Your task to perform on an android device: Show the shopping cart on ebay. Image 0: 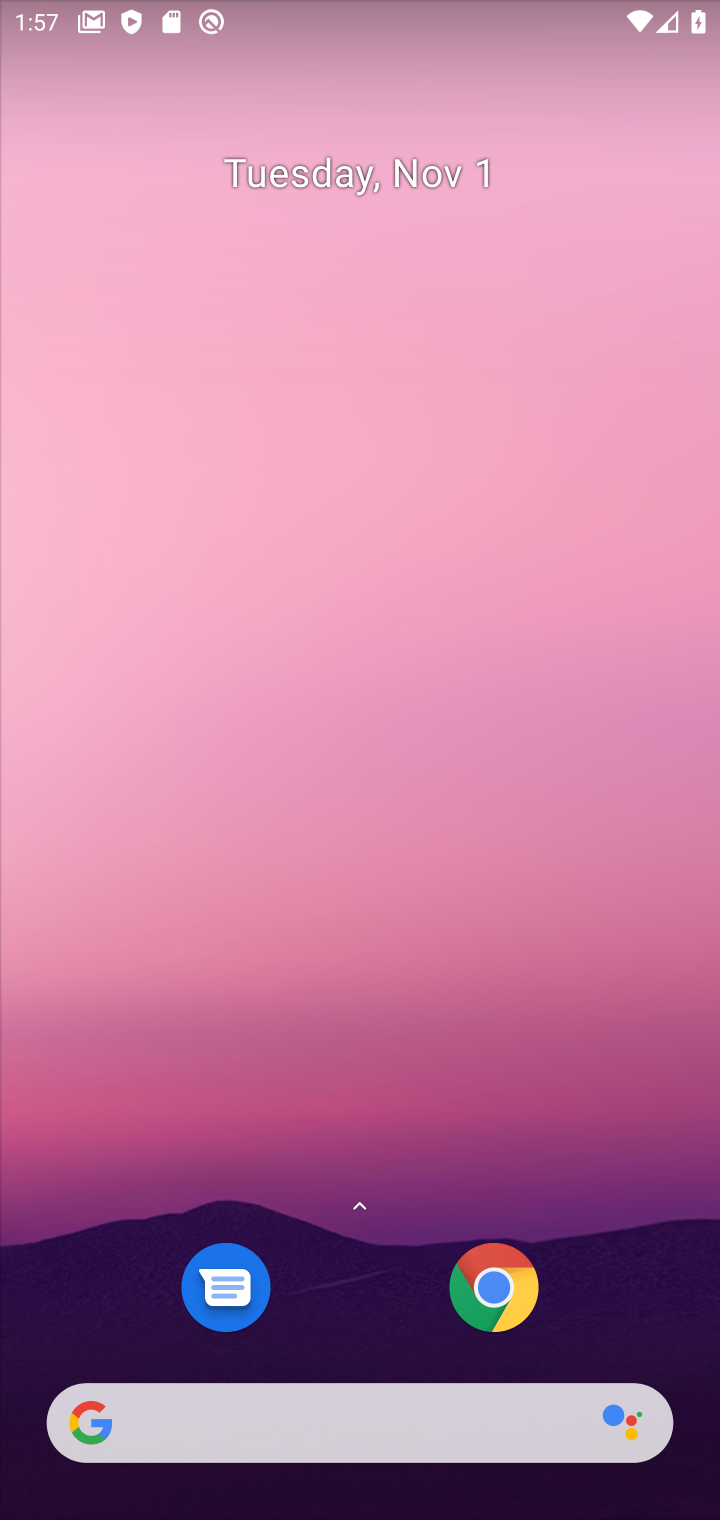
Step 0: press home button
Your task to perform on an android device: Show the shopping cart on ebay. Image 1: 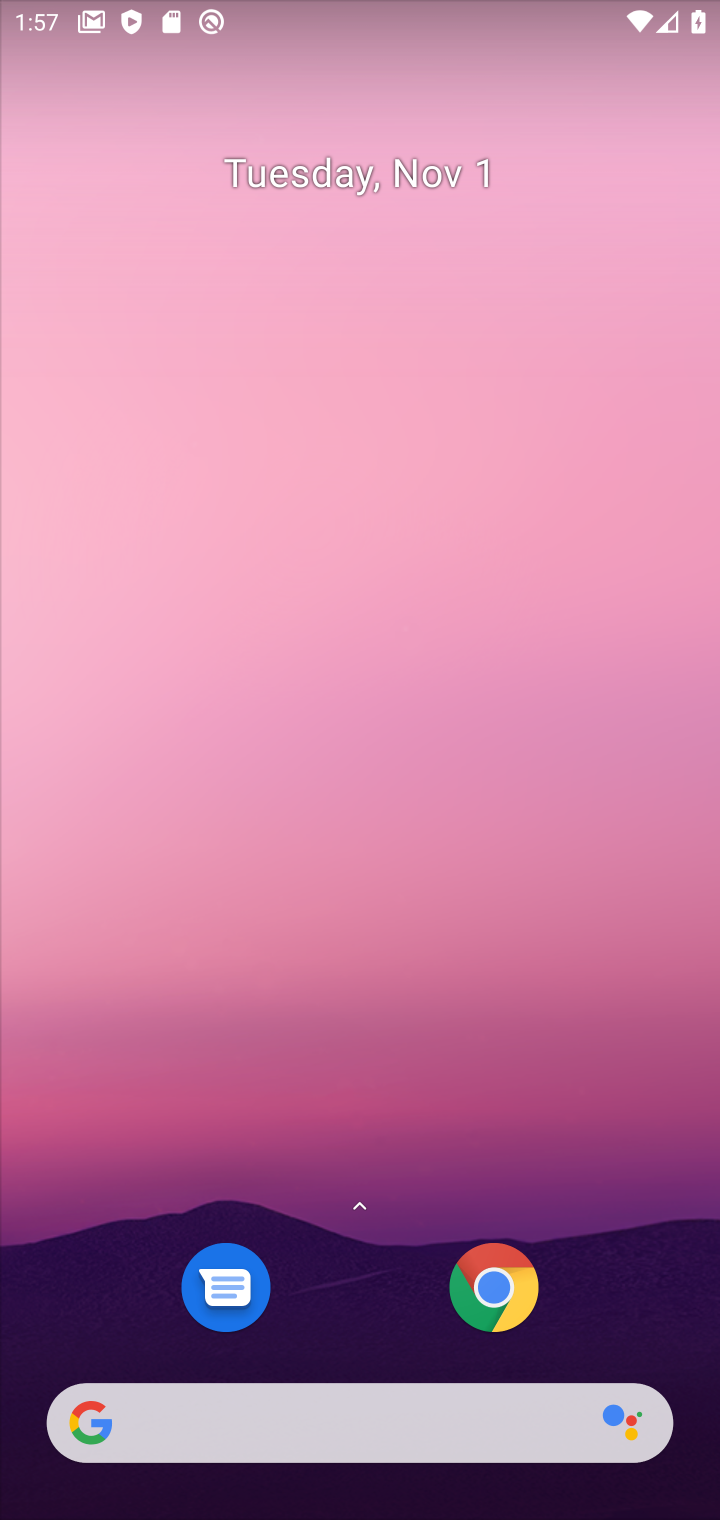
Step 1: drag from (381, 893) to (464, 44)
Your task to perform on an android device: Show the shopping cart on ebay. Image 2: 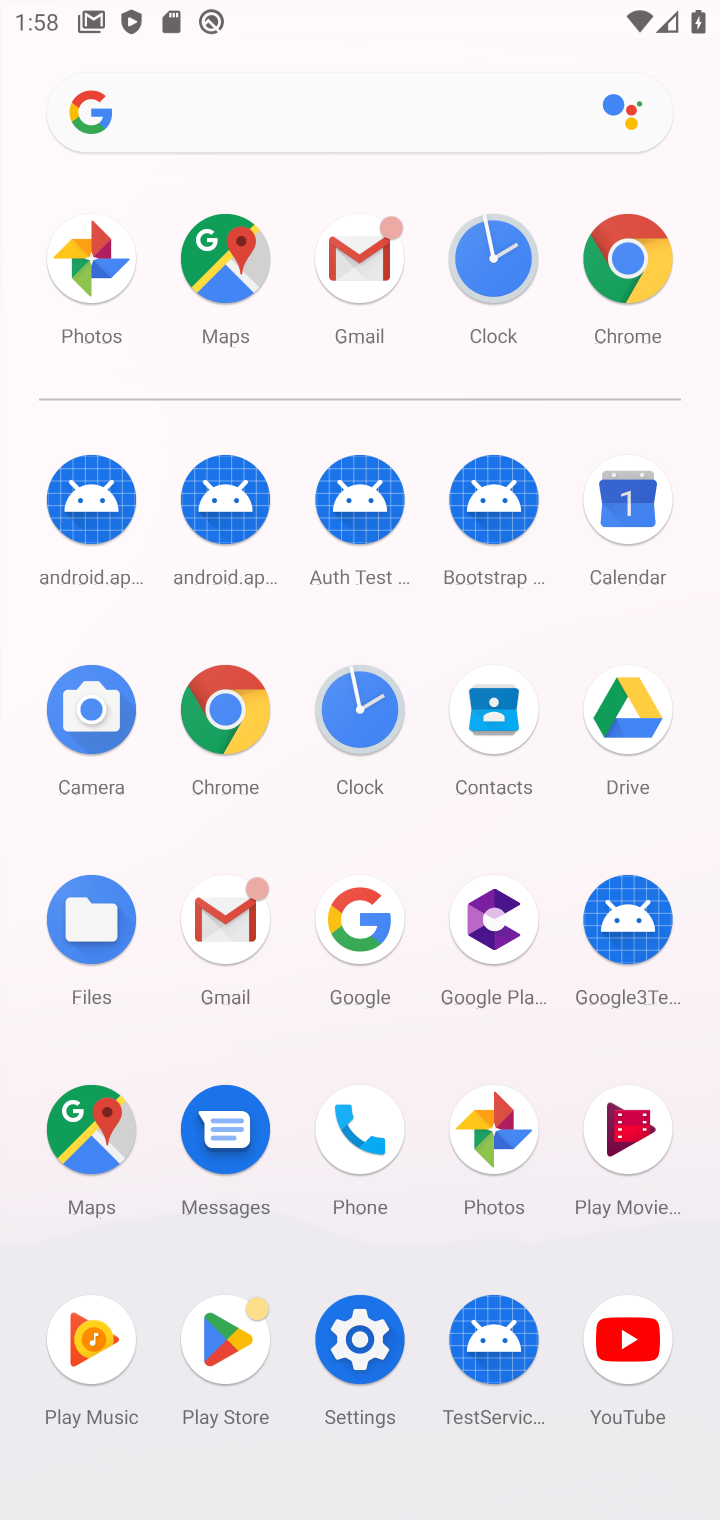
Step 2: click (221, 703)
Your task to perform on an android device: Show the shopping cart on ebay. Image 3: 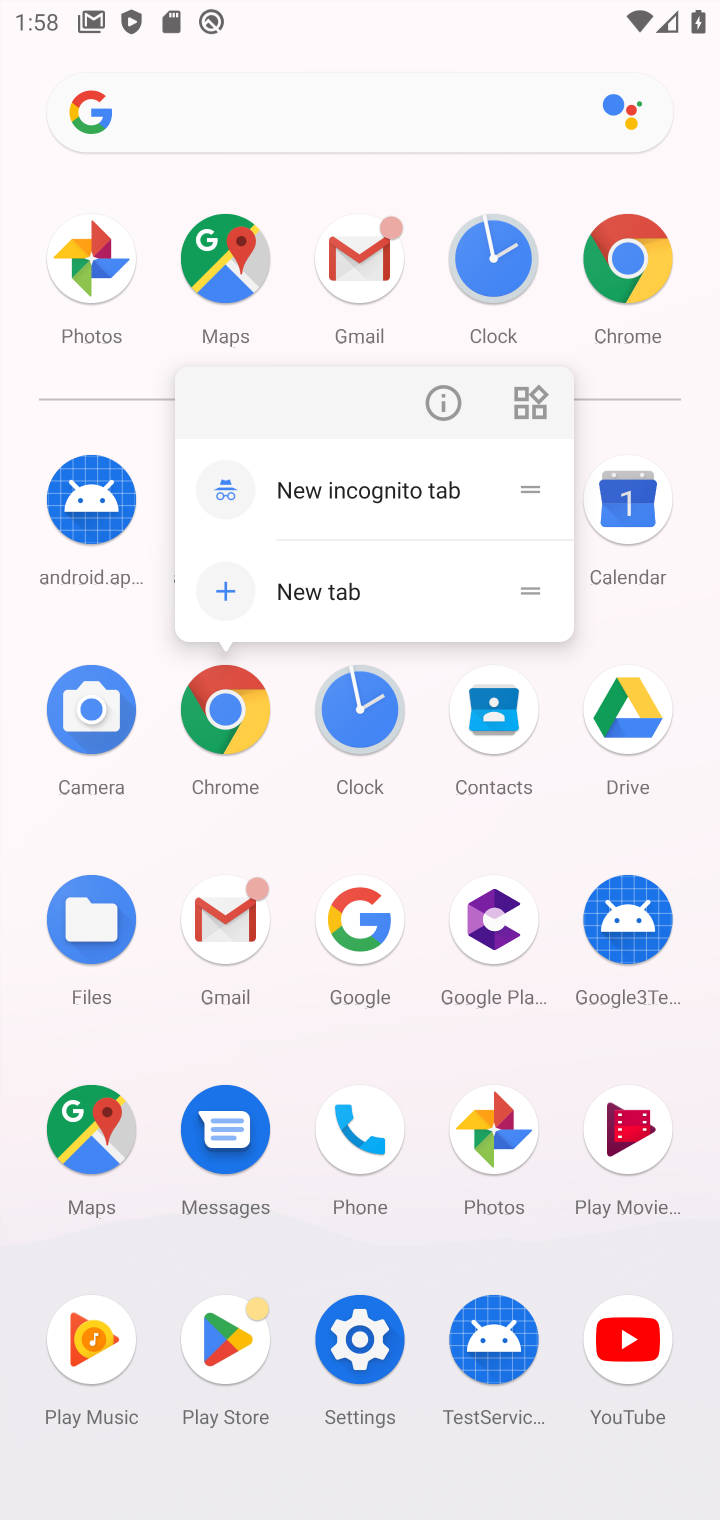
Step 3: click (219, 703)
Your task to perform on an android device: Show the shopping cart on ebay. Image 4: 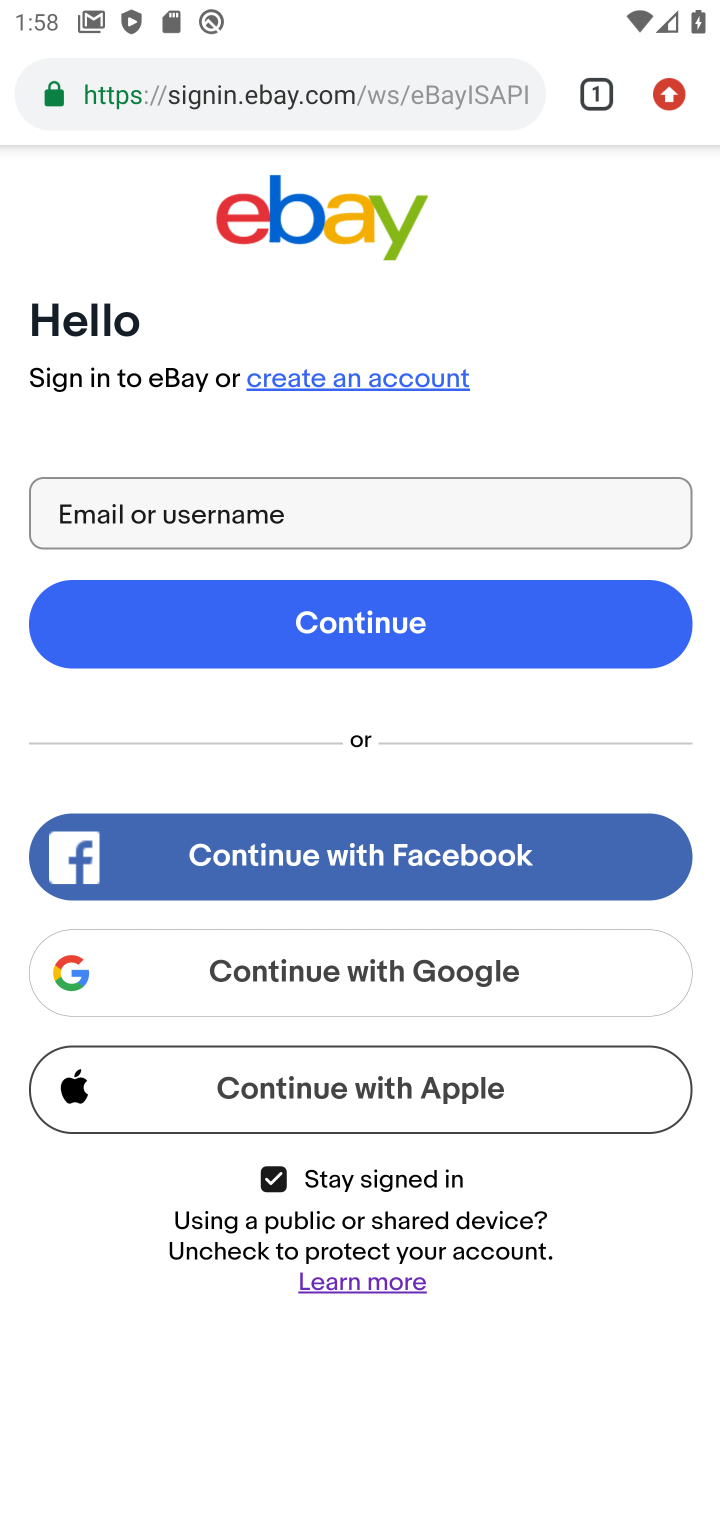
Step 4: click (464, 91)
Your task to perform on an android device: Show the shopping cart on ebay. Image 5: 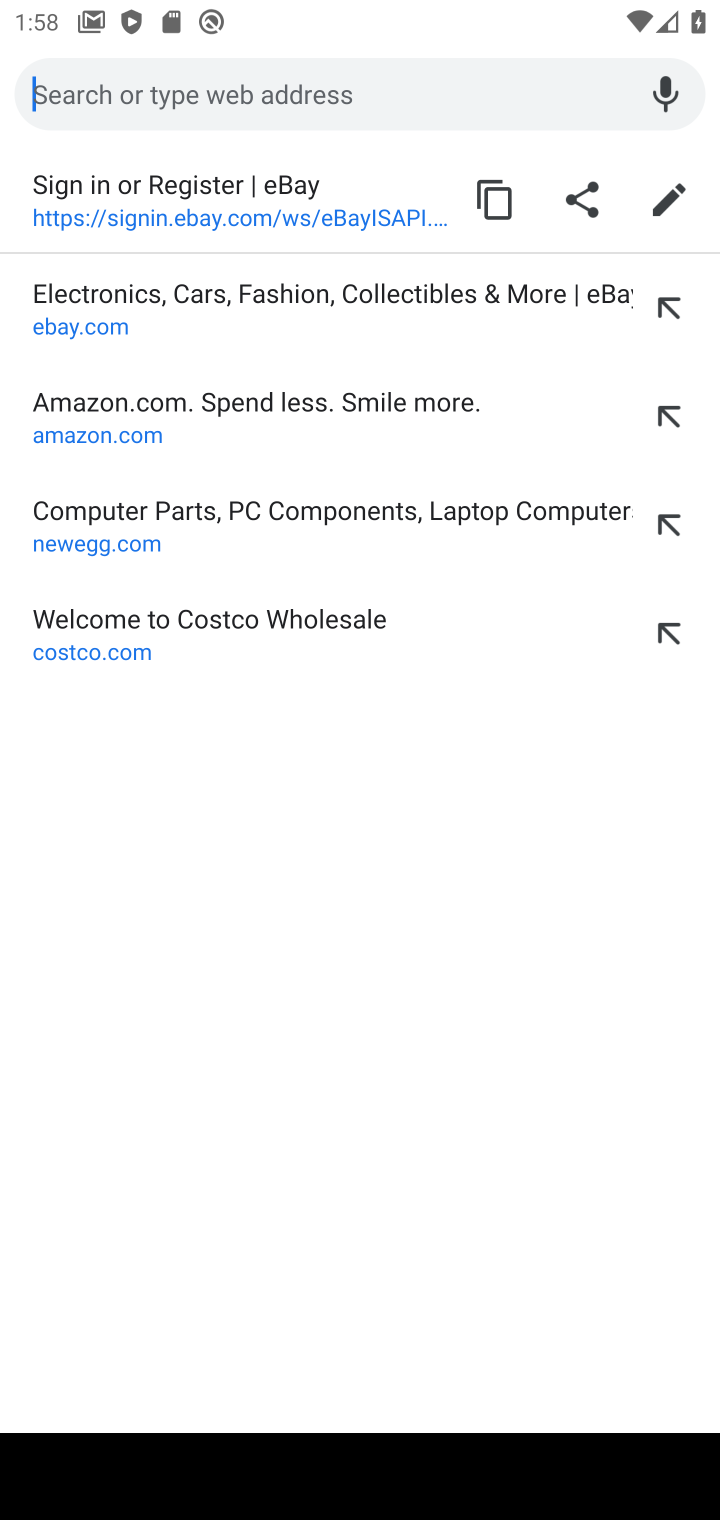
Step 5: type "ebay.com"
Your task to perform on an android device: Show the shopping cart on ebay. Image 6: 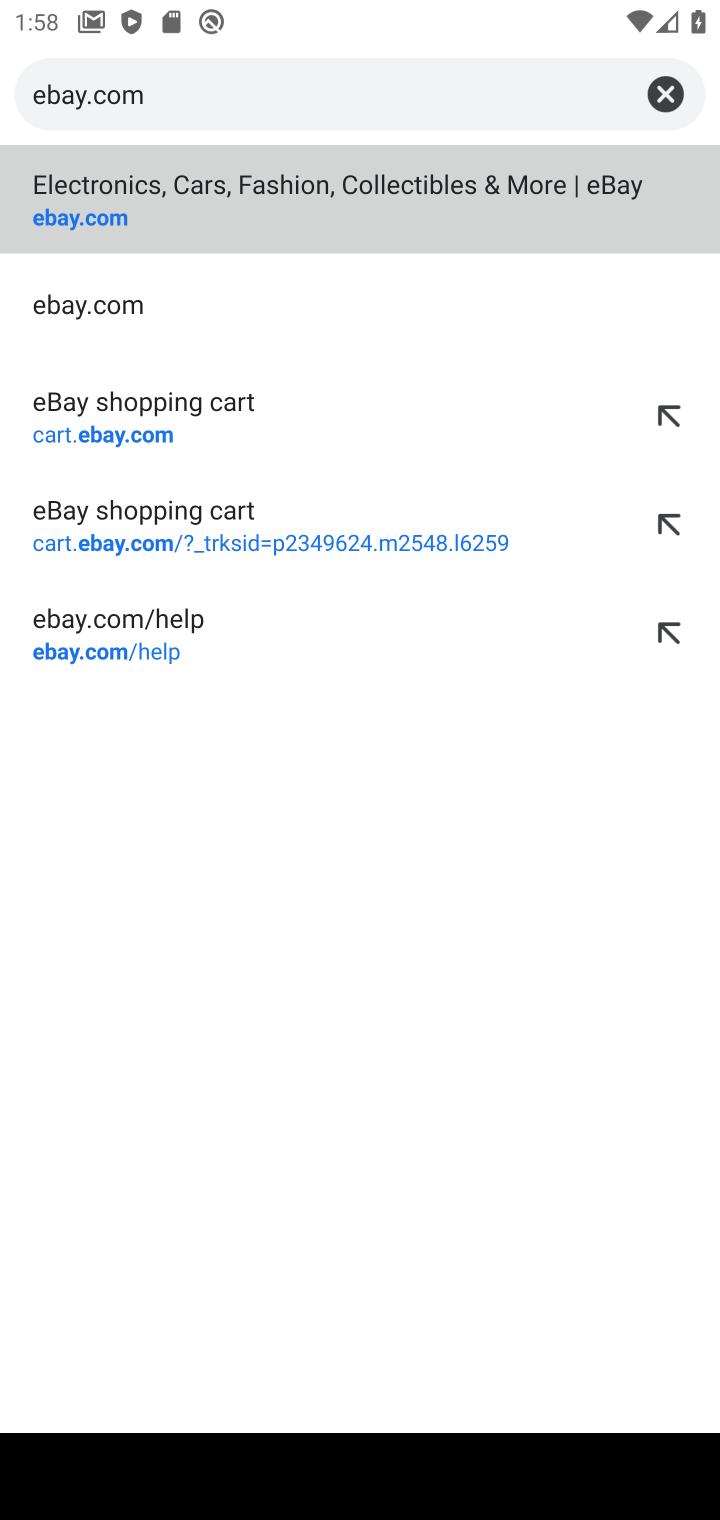
Step 6: press enter
Your task to perform on an android device: Show the shopping cart on ebay. Image 7: 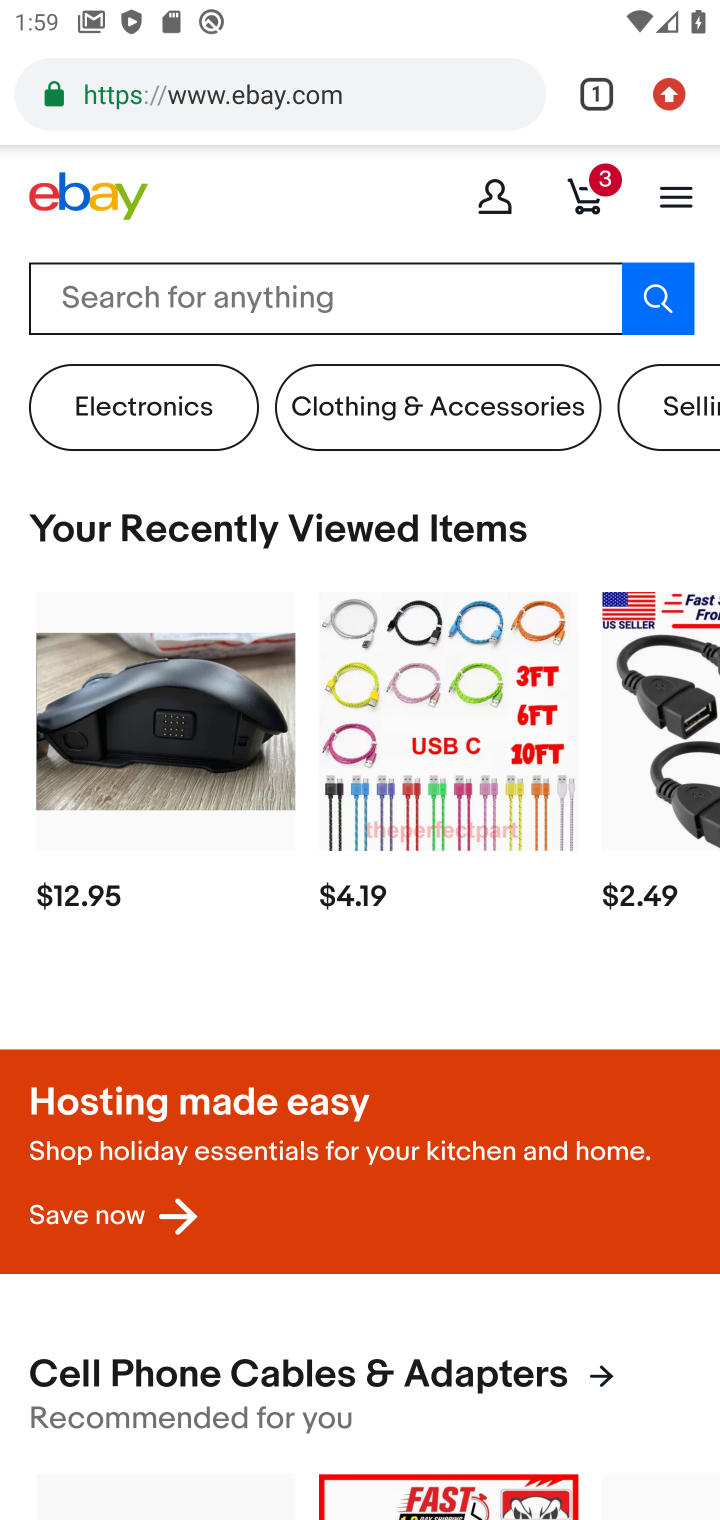
Step 7: click (587, 193)
Your task to perform on an android device: Show the shopping cart on ebay. Image 8: 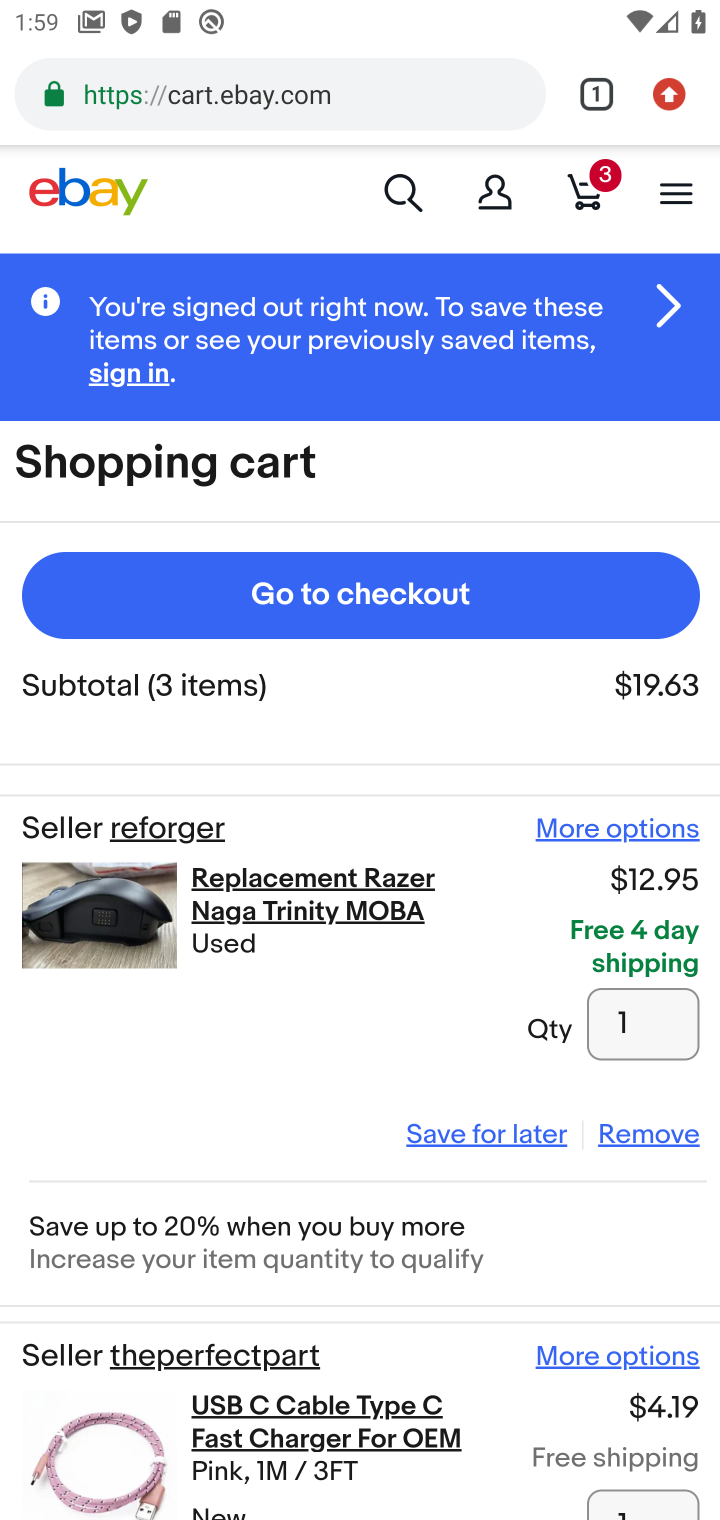
Step 8: task complete